Your task to perform on an android device: open a new tab in the chrome app Image 0: 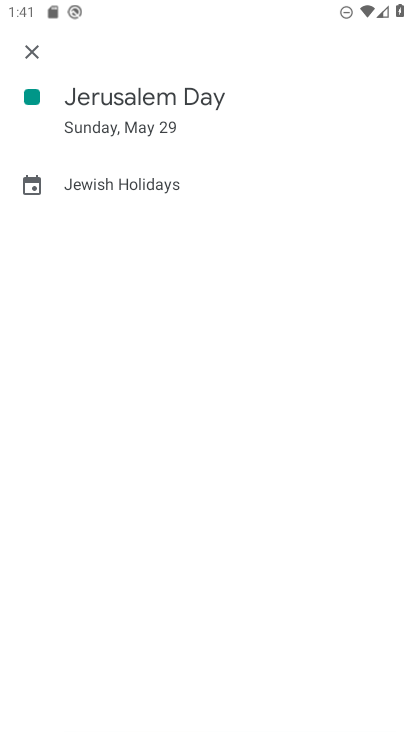
Step 0: press back button
Your task to perform on an android device: open a new tab in the chrome app Image 1: 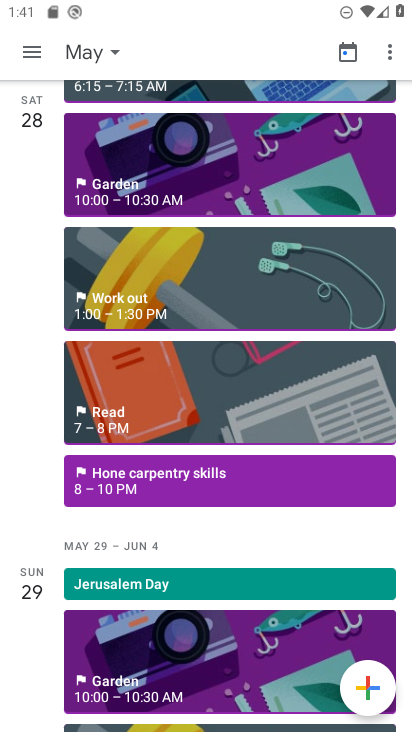
Step 1: press back button
Your task to perform on an android device: open a new tab in the chrome app Image 2: 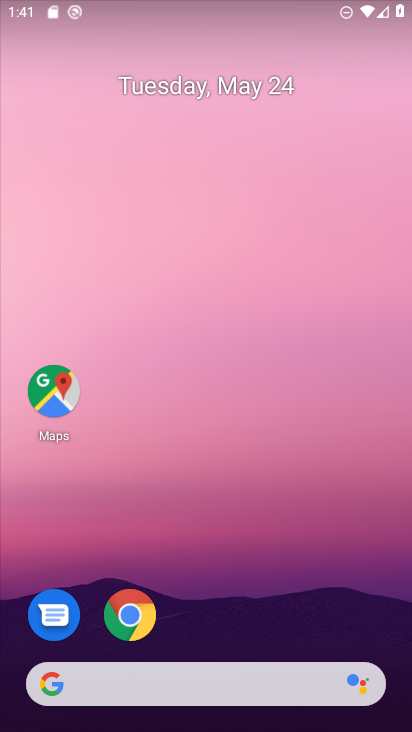
Step 2: click (135, 623)
Your task to perform on an android device: open a new tab in the chrome app Image 3: 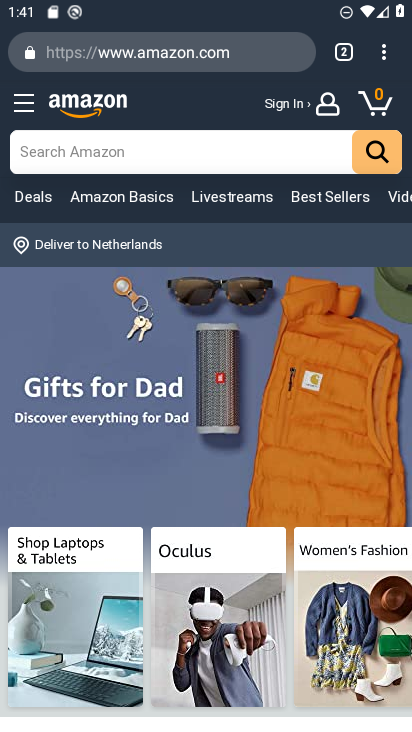
Step 3: task complete